Your task to perform on an android device: Go to settings Image 0: 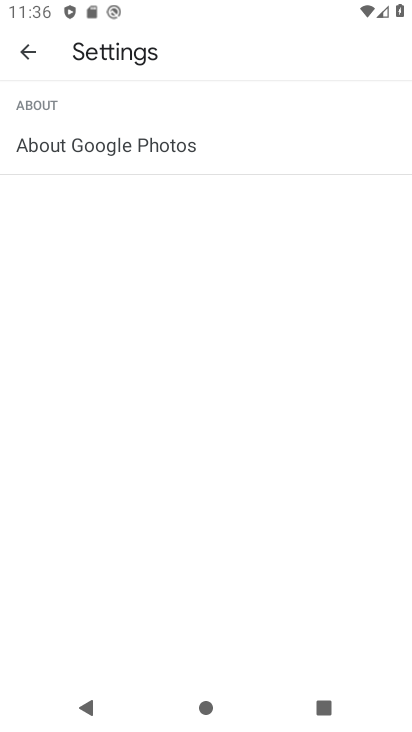
Step 0: press home button
Your task to perform on an android device: Go to settings Image 1: 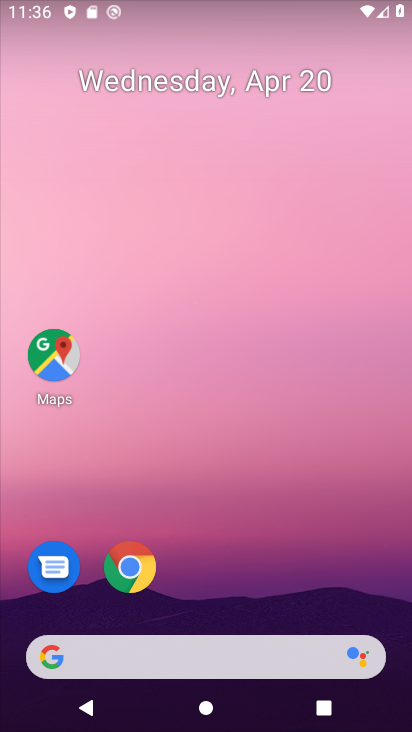
Step 1: drag from (188, 630) to (186, 339)
Your task to perform on an android device: Go to settings Image 2: 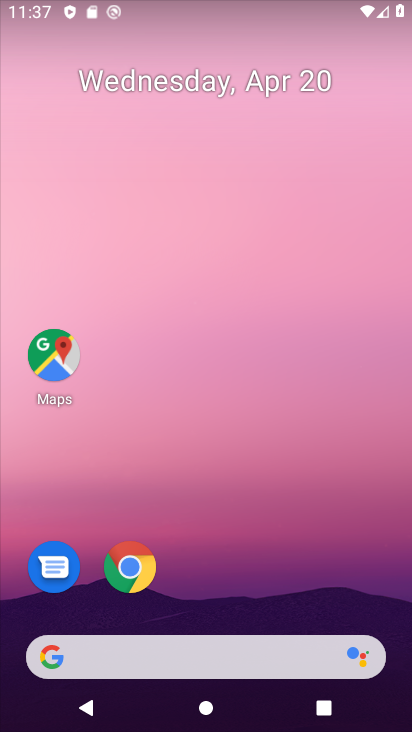
Step 2: drag from (218, 633) to (212, 256)
Your task to perform on an android device: Go to settings Image 3: 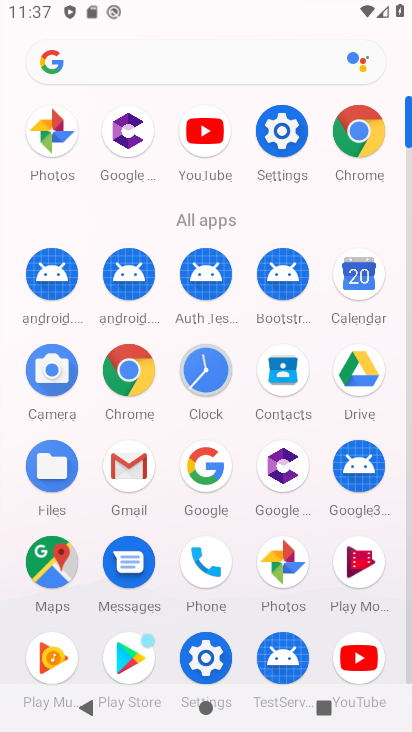
Step 3: click (280, 127)
Your task to perform on an android device: Go to settings Image 4: 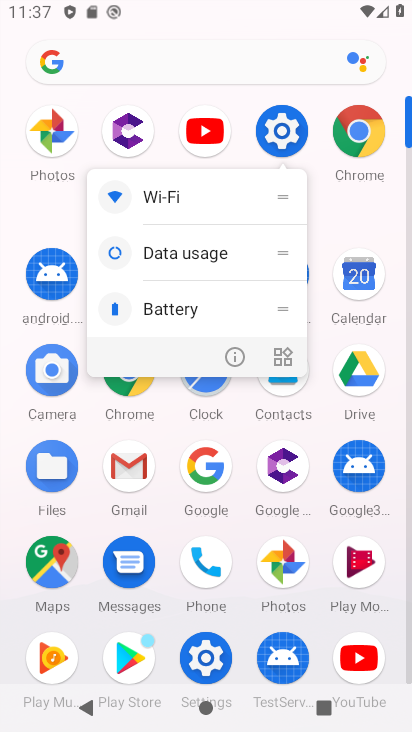
Step 4: click (287, 137)
Your task to perform on an android device: Go to settings Image 5: 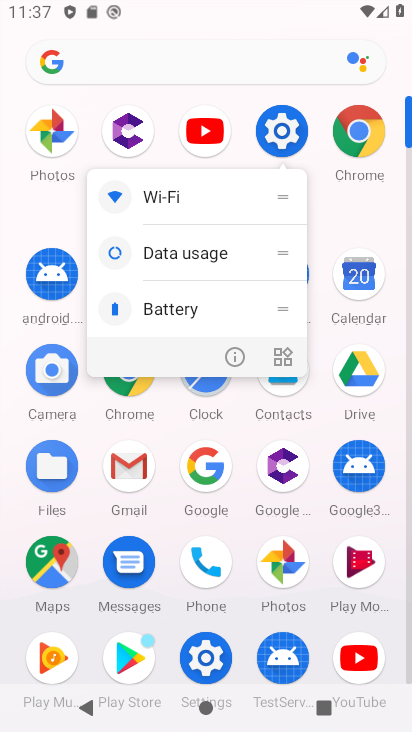
Step 5: click (287, 137)
Your task to perform on an android device: Go to settings Image 6: 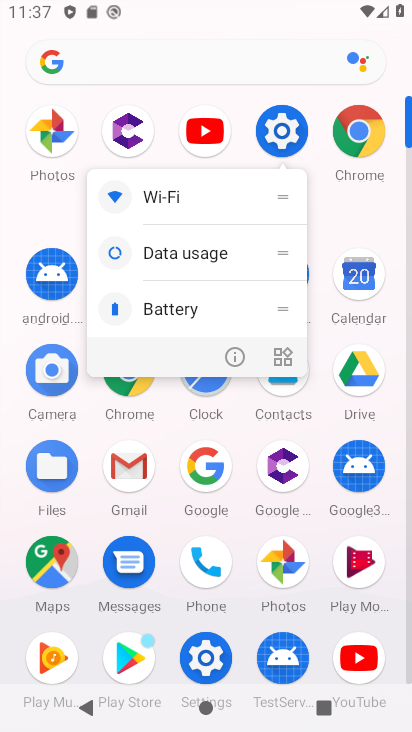
Step 6: click (205, 662)
Your task to perform on an android device: Go to settings Image 7: 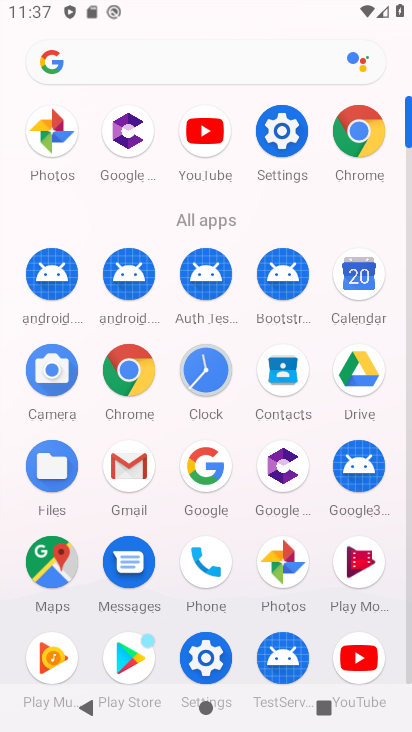
Step 7: click (206, 657)
Your task to perform on an android device: Go to settings Image 8: 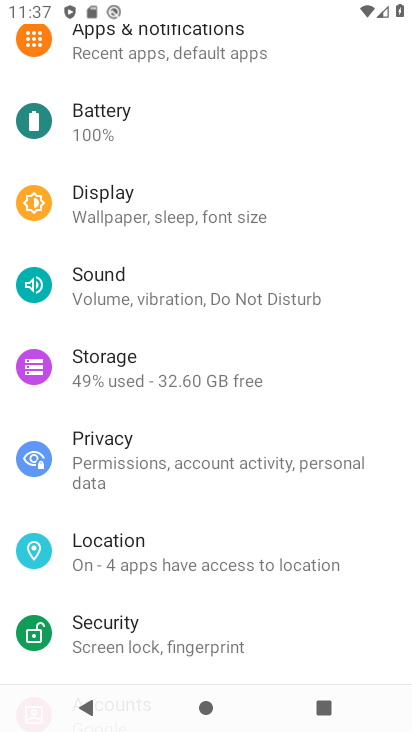
Step 8: task complete